Your task to perform on an android device: change timer sound Image 0: 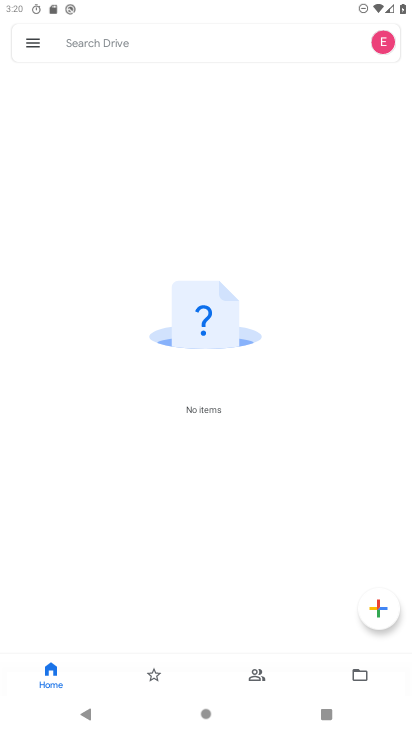
Step 0: press home button
Your task to perform on an android device: change timer sound Image 1: 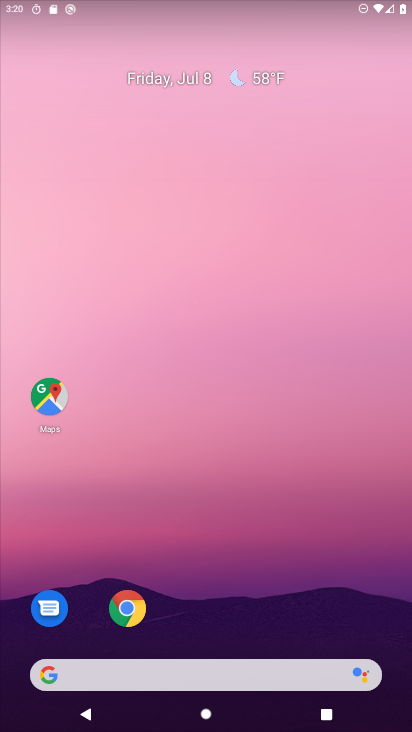
Step 1: drag from (241, 724) to (210, 79)
Your task to perform on an android device: change timer sound Image 2: 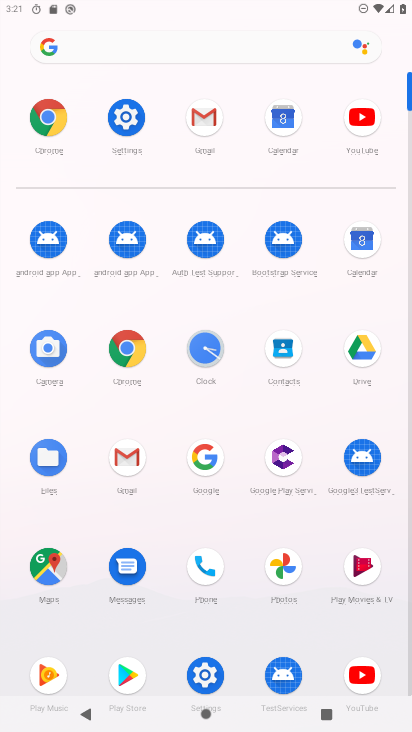
Step 2: click (206, 342)
Your task to perform on an android device: change timer sound Image 3: 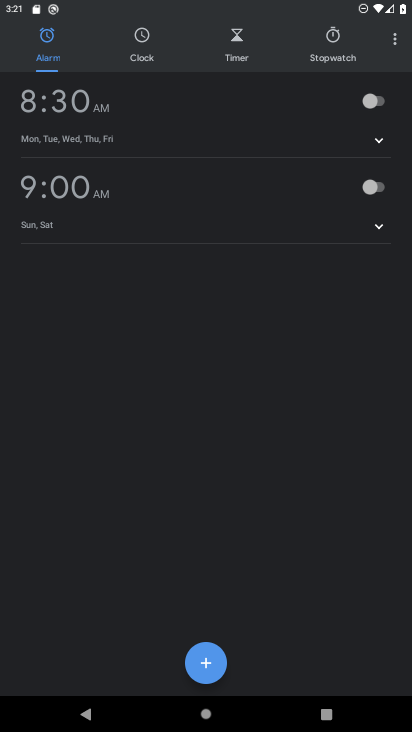
Step 3: click (396, 47)
Your task to perform on an android device: change timer sound Image 4: 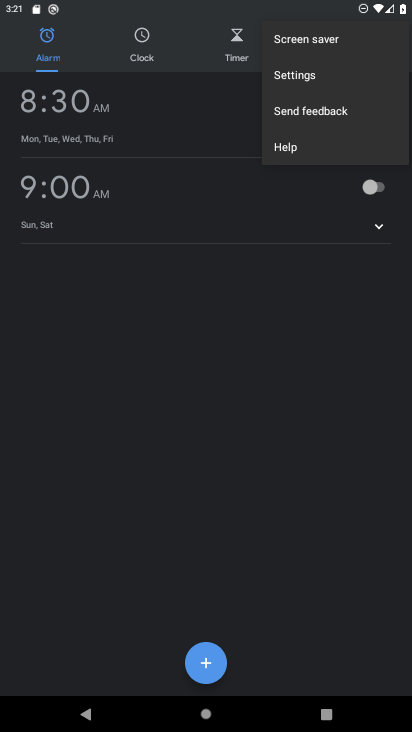
Step 4: click (288, 71)
Your task to perform on an android device: change timer sound Image 5: 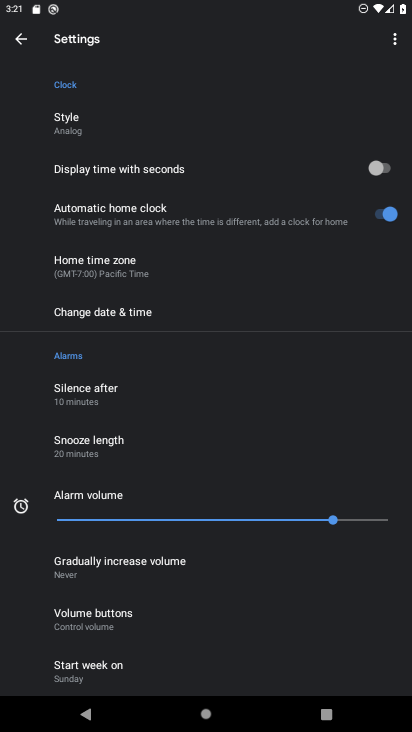
Step 5: drag from (170, 559) to (166, 299)
Your task to perform on an android device: change timer sound Image 6: 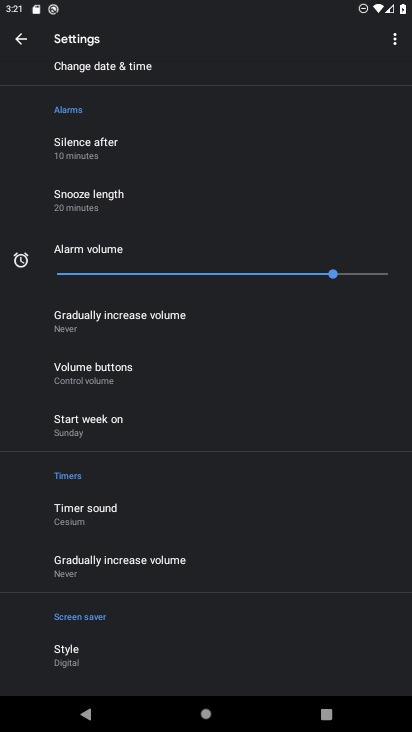
Step 6: click (99, 508)
Your task to perform on an android device: change timer sound Image 7: 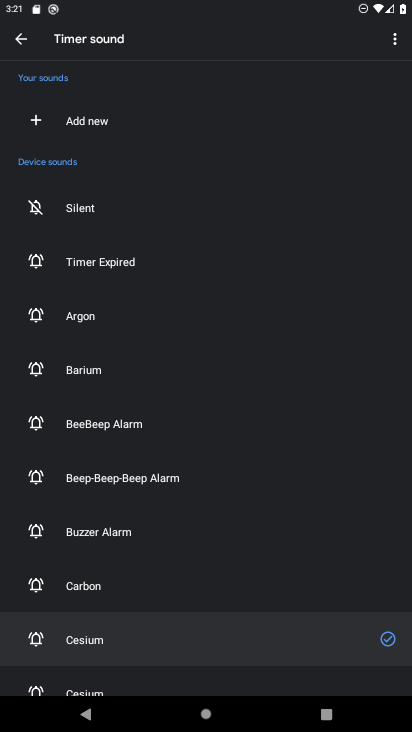
Step 7: click (81, 372)
Your task to perform on an android device: change timer sound Image 8: 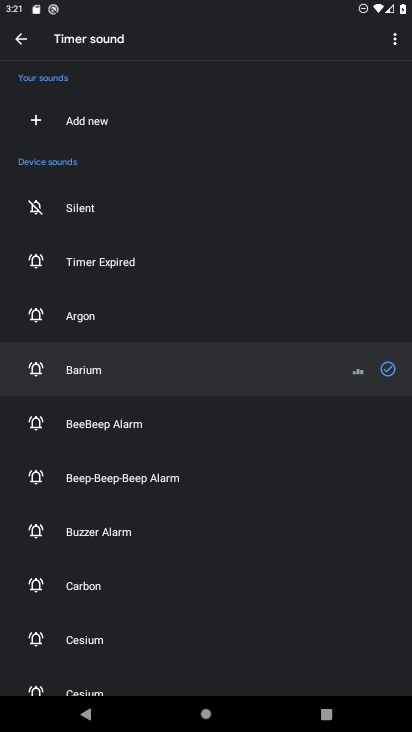
Step 8: task complete